Your task to perform on an android device: Go to battery settings Image 0: 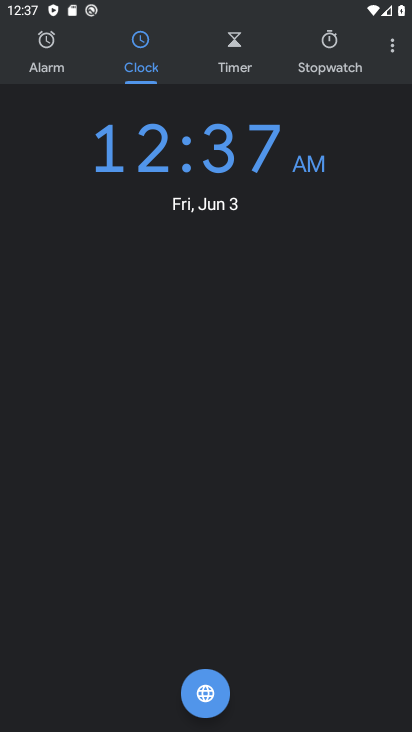
Step 0: press home button
Your task to perform on an android device: Go to battery settings Image 1: 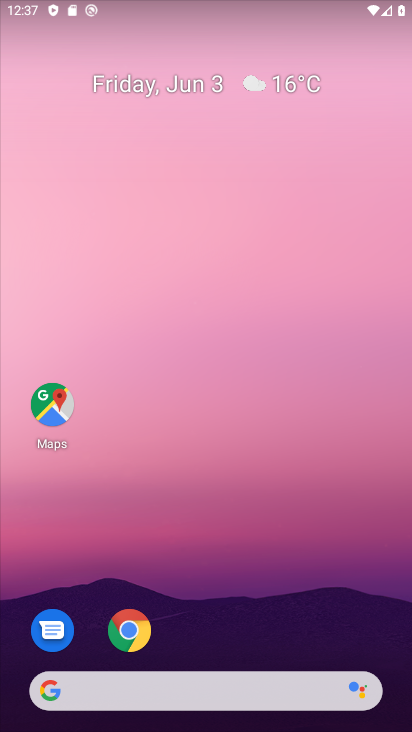
Step 1: drag from (215, 716) to (89, 140)
Your task to perform on an android device: Go to battery settings Image 2: 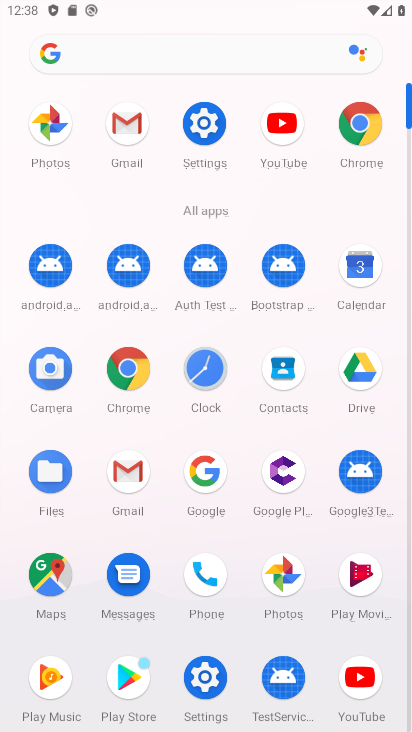
Step 2: click (214, 663)
Your task to perform on an android device: Go to battery settings Image 3: 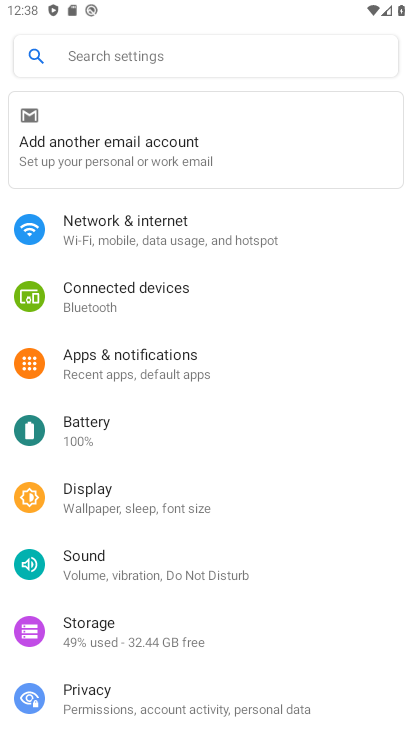
Step 3: click (106, 435)
Your task to perform on an android device: Go to battery settings Image 4: 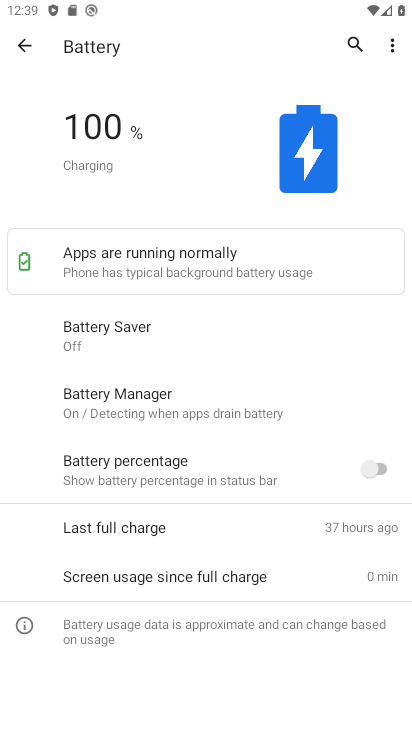
Step 4: task complete